Your task to perform on an android device: Go to calendar. Show me events next week Image 0: 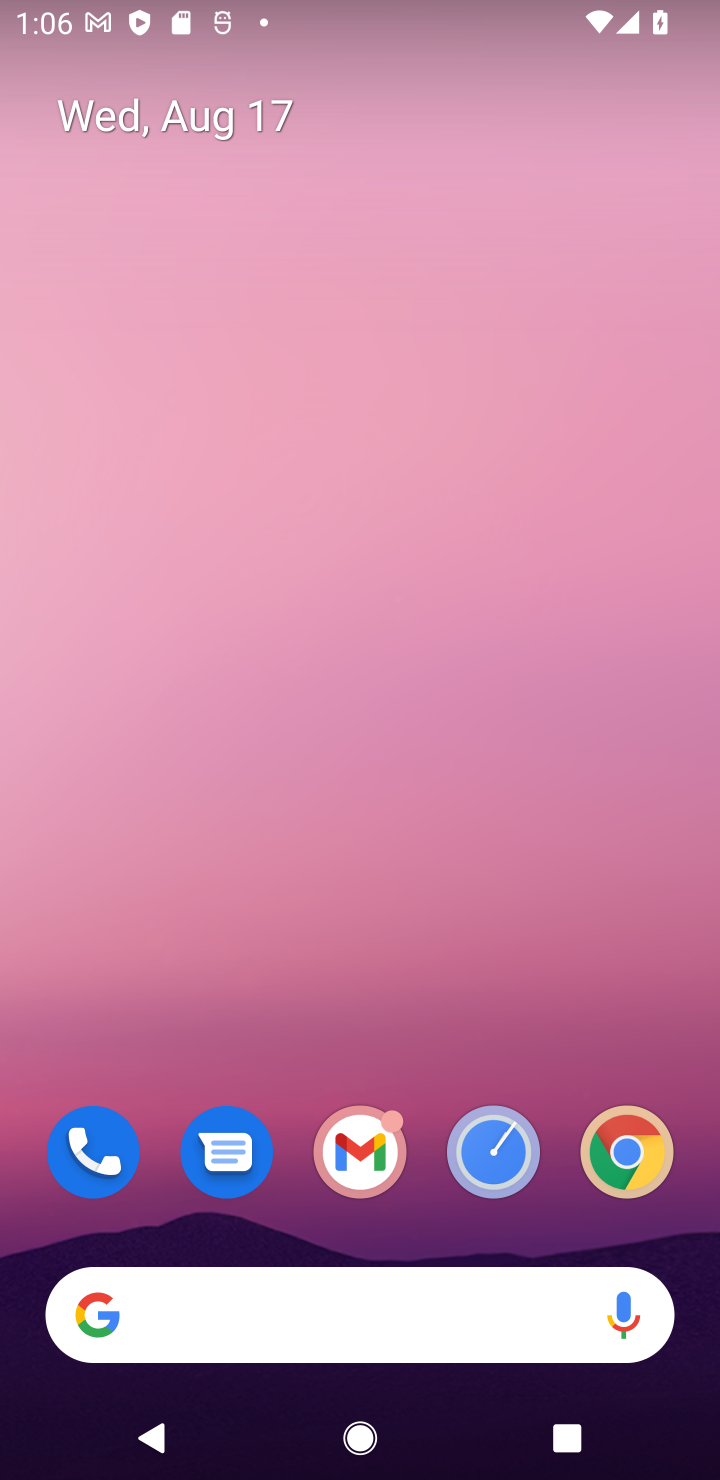
Step 0: drag from (424, 916) to (299, 36)
Your task to perform on an android device: Go to calendar. Show me events next week Image 1: 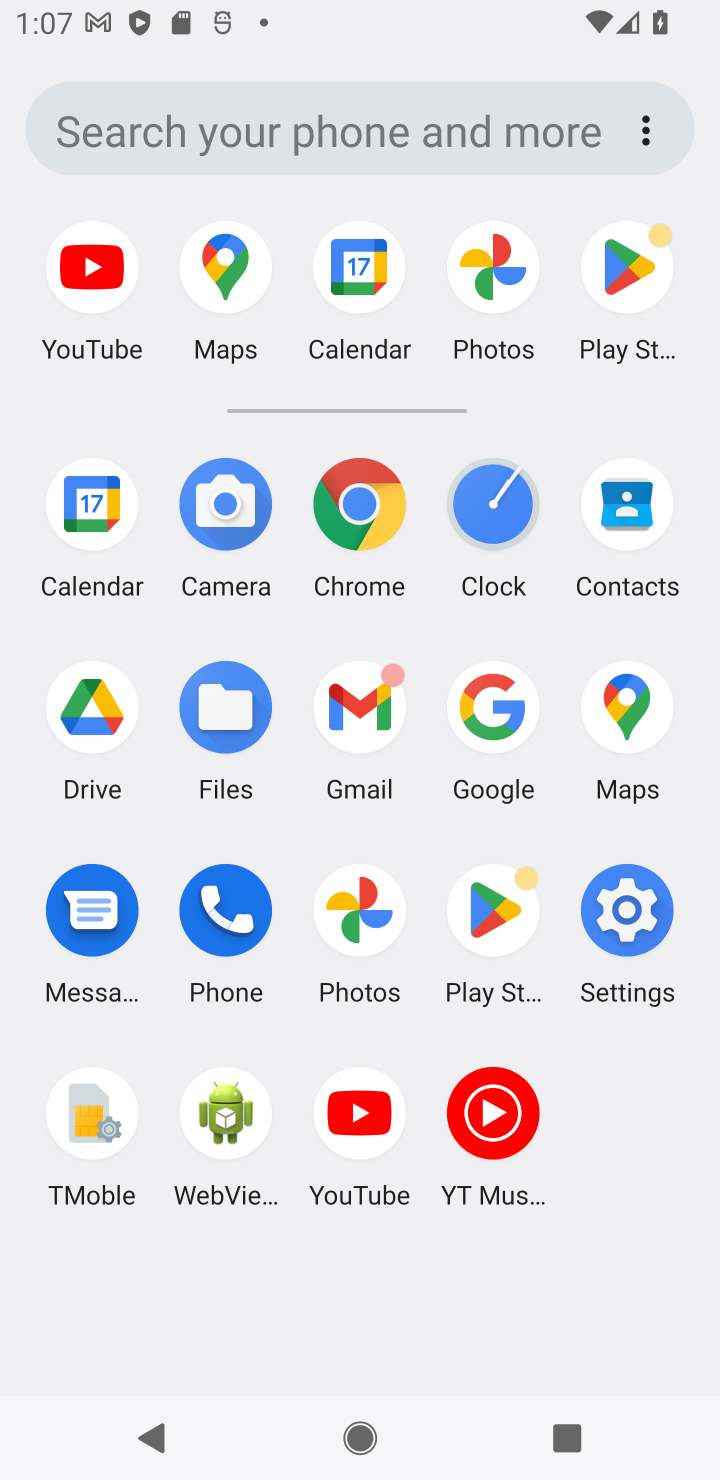
Step 1: click (79, 498)
Your task to perform on an android device: Go to calendar. Show me events next week Image 2: 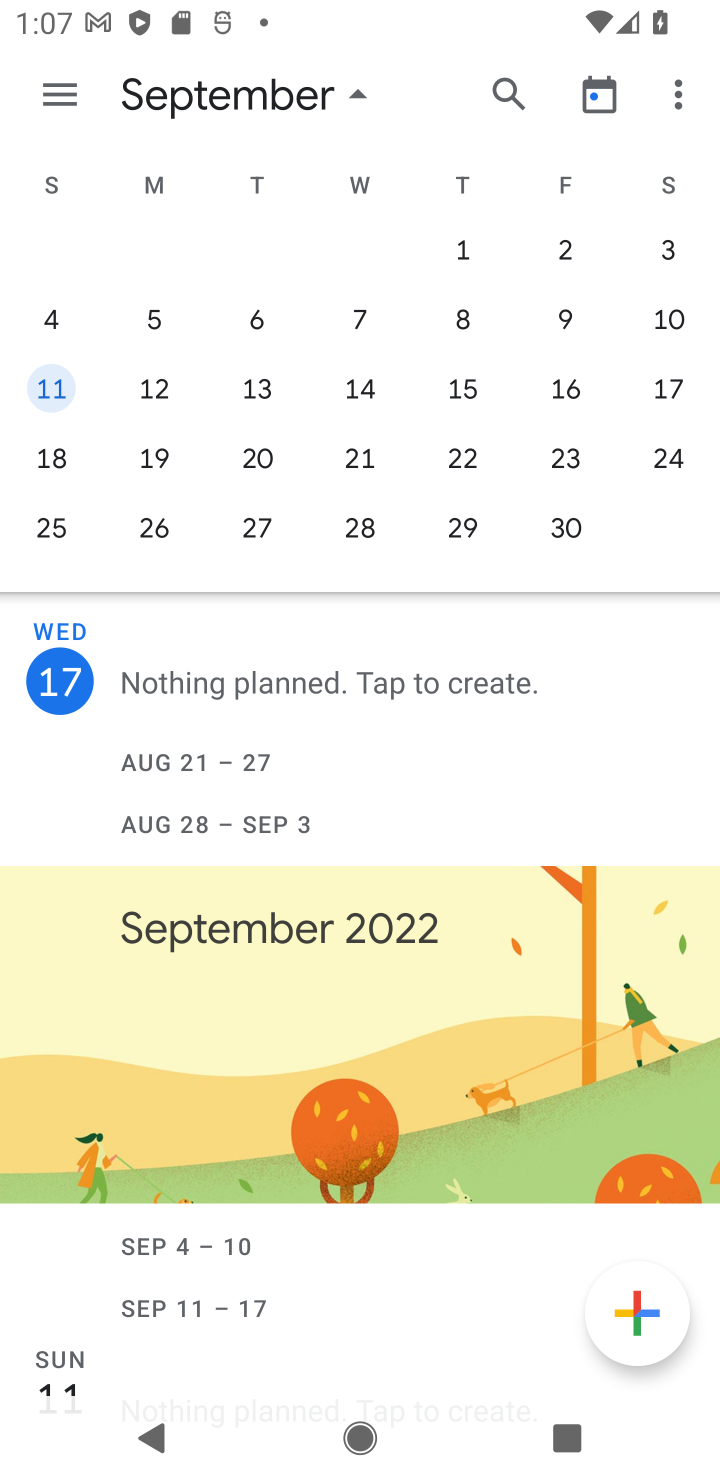
Step 2: task complete